Your task to perform on an android device: make emails show in primary in the gmail app Image 0: 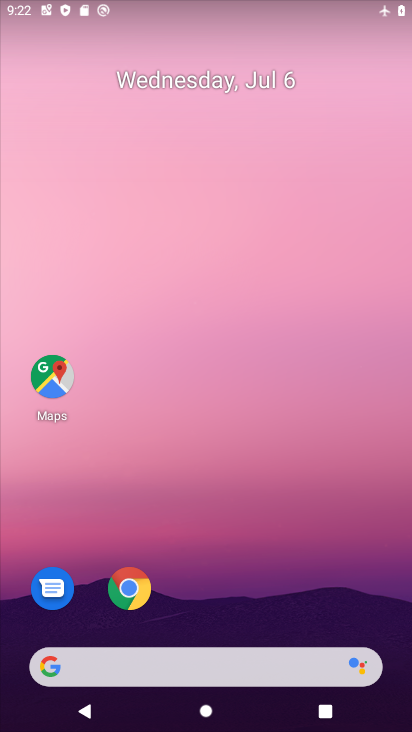
Step 0: drag from (194, 668) to (315, 108)
Your task to perform on an android device: make emails show in primary in the gmail app Image 1: 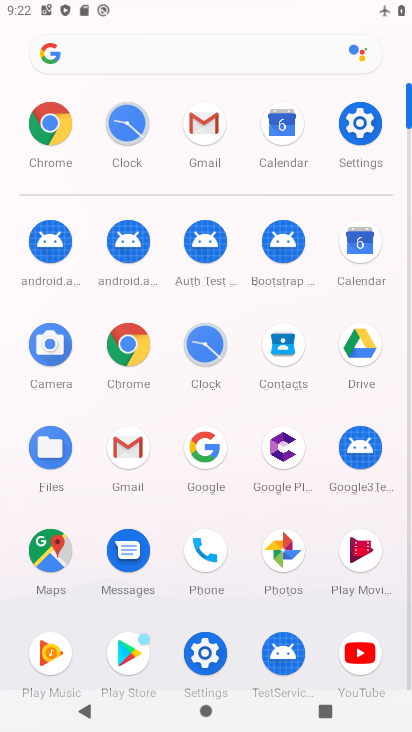
Step 1: click (203, 129)
Your task to perform on an android device: make emails show in primary in the gmail app Image 2: 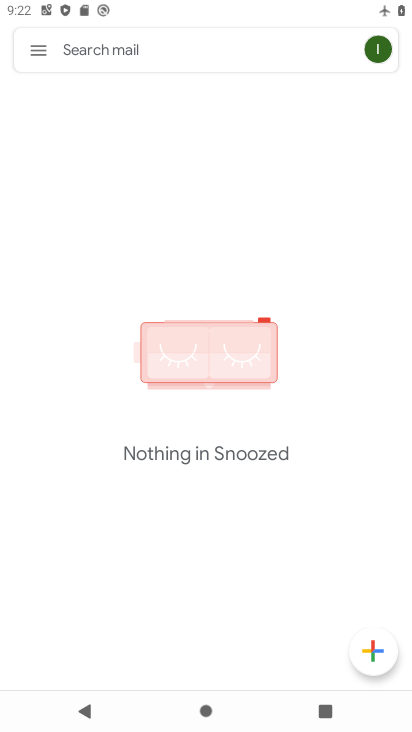
Step 2: click (36, 55)
Your task to perform on an android device: make emails show in primary in the gmail app Image 3: 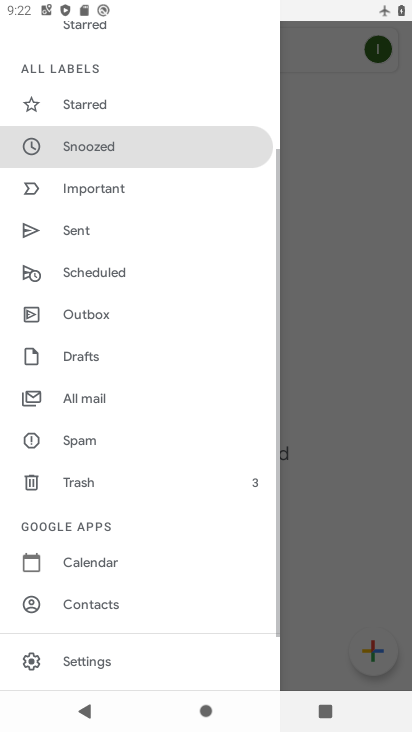
Step 3: click (102, 659)
Your task to perform on an android device: make emails show in primary in the gmail app Image 4: 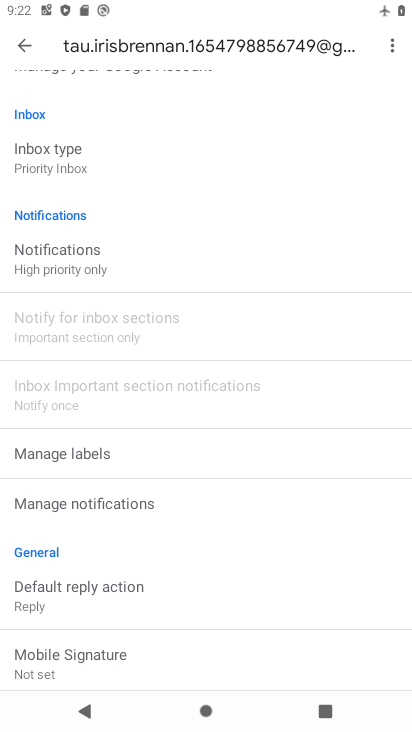
Step 4: task complete